Your task to perform on an android device: Open my contact list Image 0: 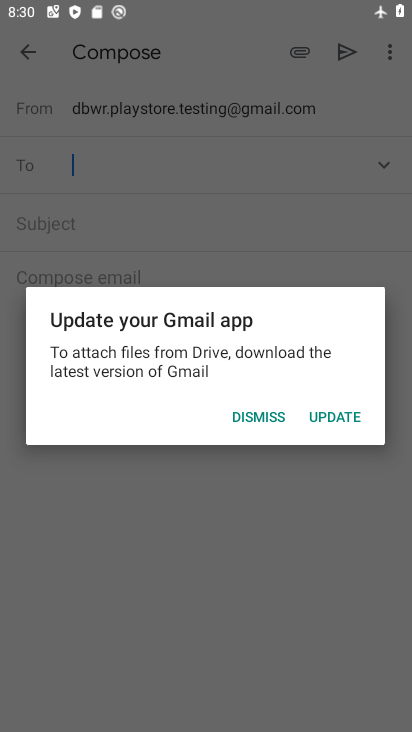
Step 0: press home button
Your task to perform on an android device: Open my contact list Image 1: 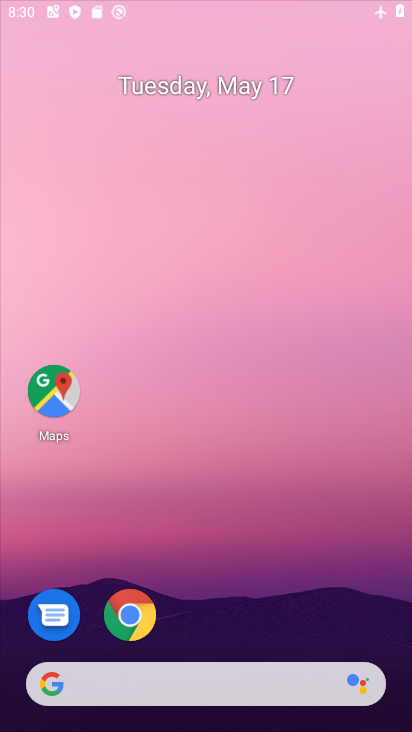
Step 1: drag from (246, 596) to (277, 310)
Your task to perform on an android device: Open my contact list Image 2: 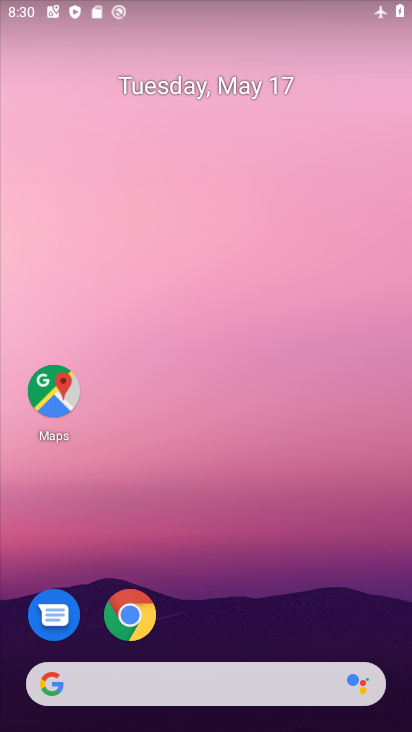
Step 2: drag from (239, 617) to (261, 246)
Your task to perform on an android device: Open my contact list Image 3: 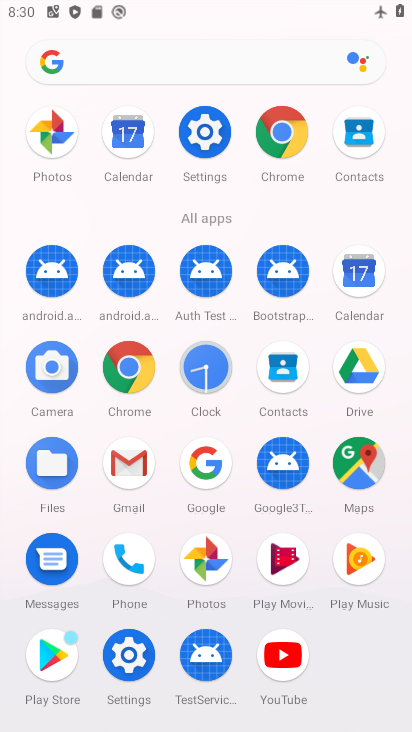
Step 3: click (137, 558)
Your task to perform on an android device: Open my contact list Image 4: 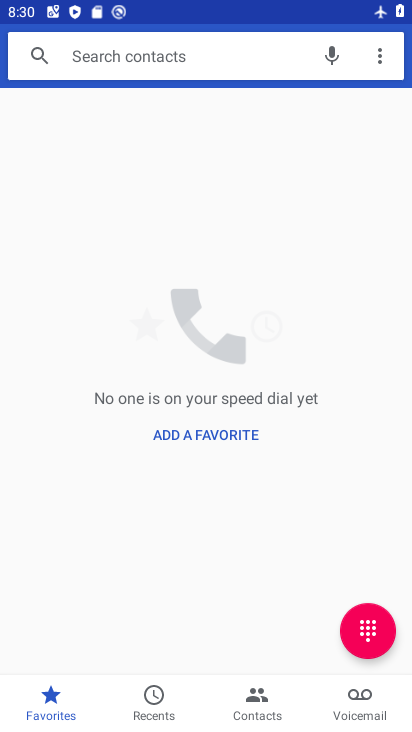
Step 4: click (251, 695)
Your task to perform on an android device: Open my contact list Image 5: 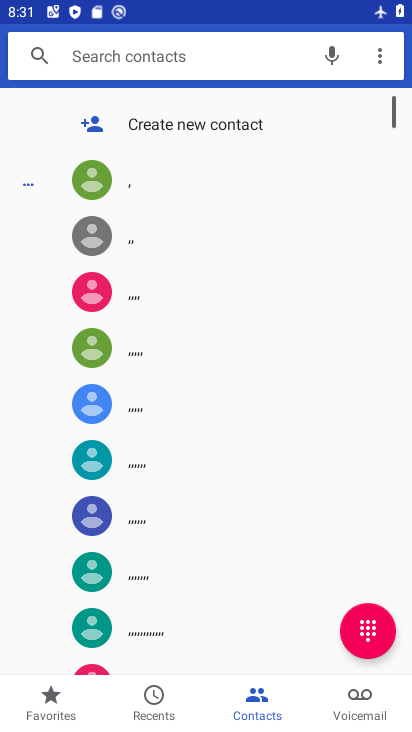
Step 5: task complete